Your task to perform on an android device: Open Google Chrome and open the bookmarks view Image 0: 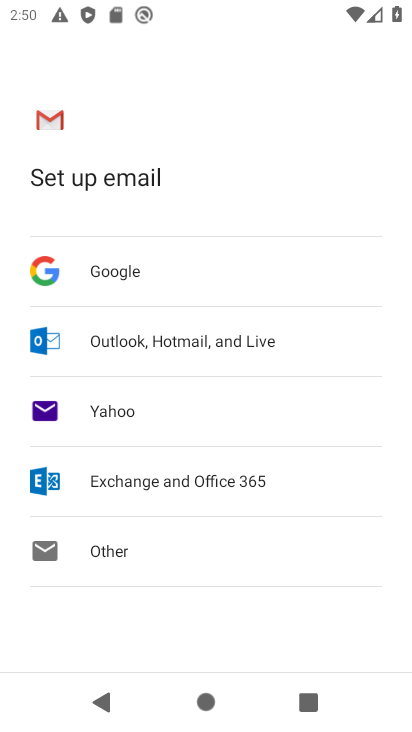
Step 0: press home button
Your task to perform on an android device: Open Google Chrome and open the bookmarks view Image 1: 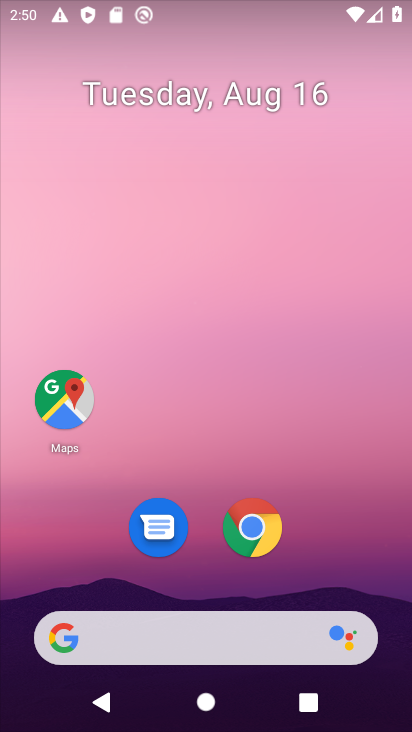
Step 1: click (249, 523)
Your task to perform on an android device: Open Google Chrome and open the bookmarks view Image 2: 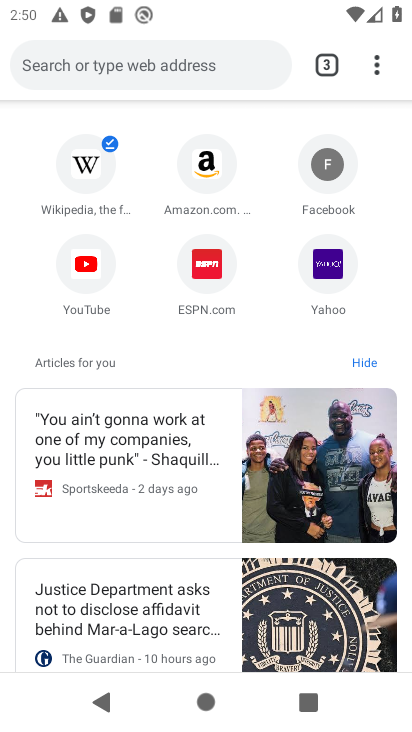
Step 2: click (375, 72)
Your task to perform on an android device: Open Google Chrome and open the bookmarks view Image 3: 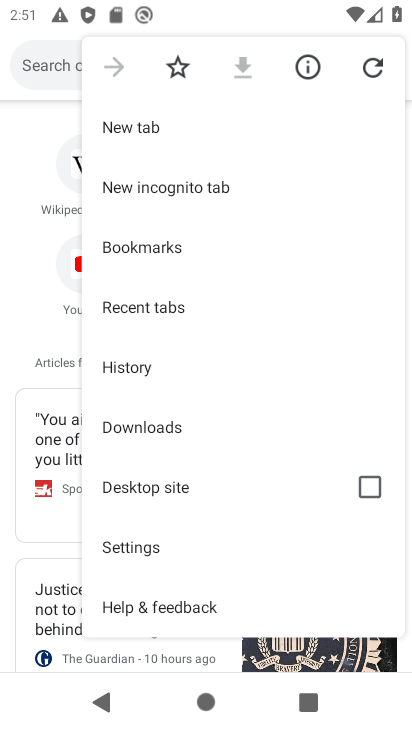
Step 3: click (179, 252)
Your task to perform on an android device: Open Google Chrome and open the bookmarks view Image 4: 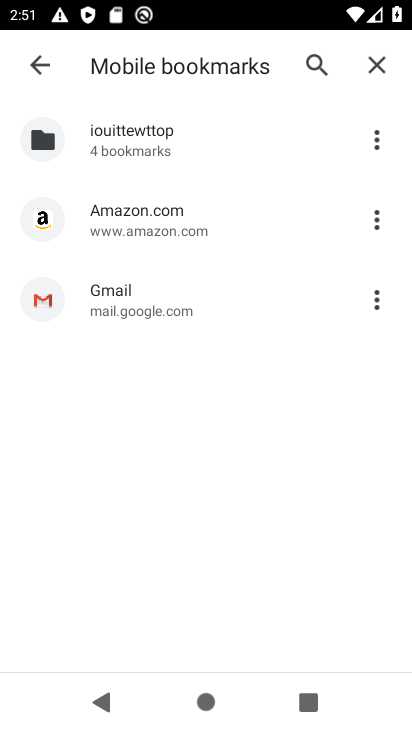
Step 4: task complete